Your task to perform on an android device: find which apps use the phone's location Image 0: 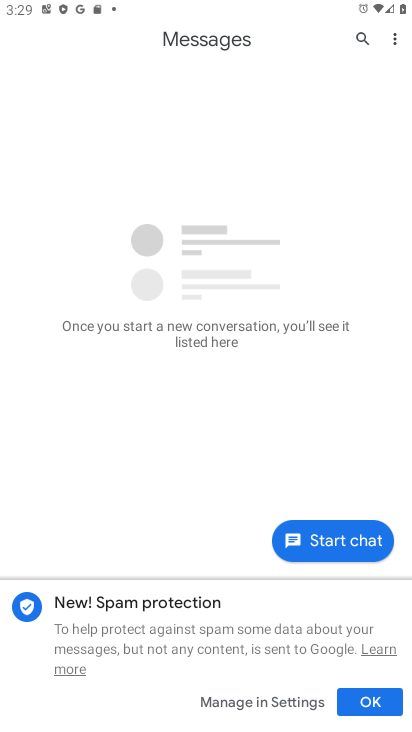
Step 0: press home button
Your task to perform on an android device: find which apps use the phone's location Image 1: 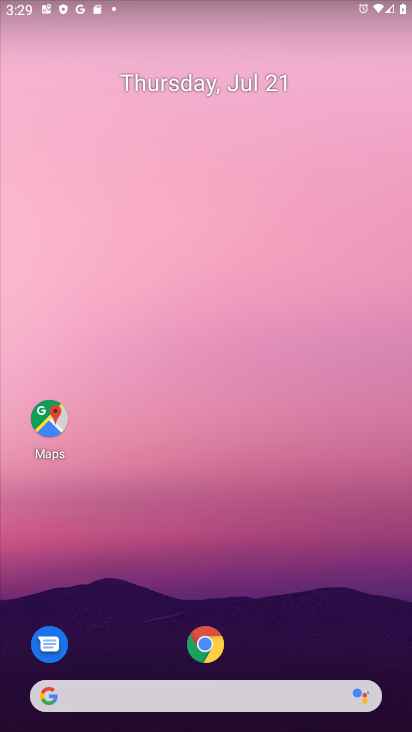
Step 1: drag from (279, 603) to (267, 101)
Your task to perform on an android device: find which apps use the phone's location Image 2: 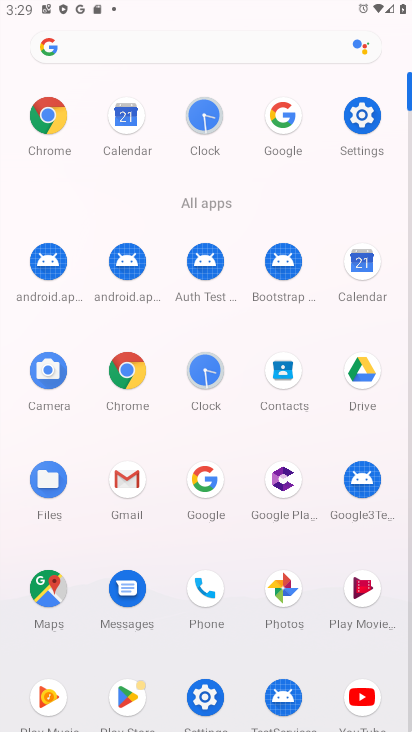
Step 2: click (349, 121)
Your task to perform on an android device: find which apps use the phone's location Image 3: 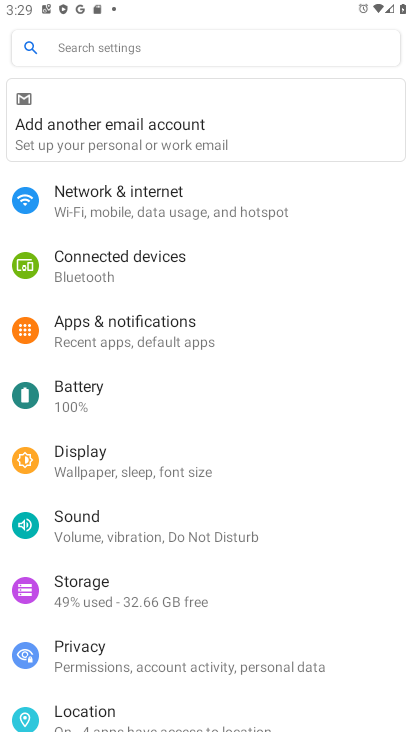
Step 3: click (89, 709)
Your task to perform on an android device: find which apps use the phone's location Image 4: 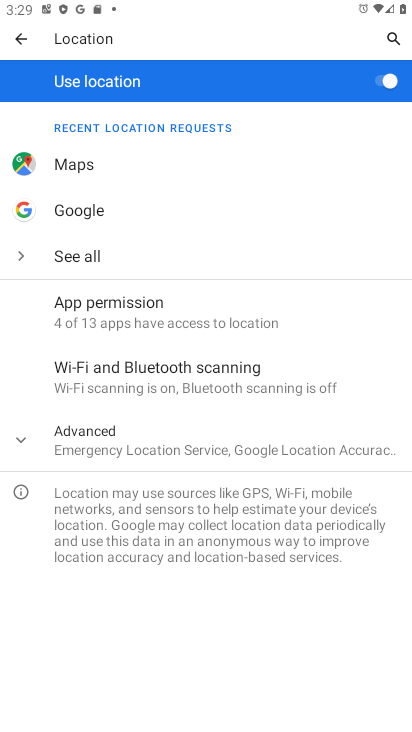
Step 4: click (115, 321)
Your task to perform on an android device: find which apps use the phone's location Image 5: 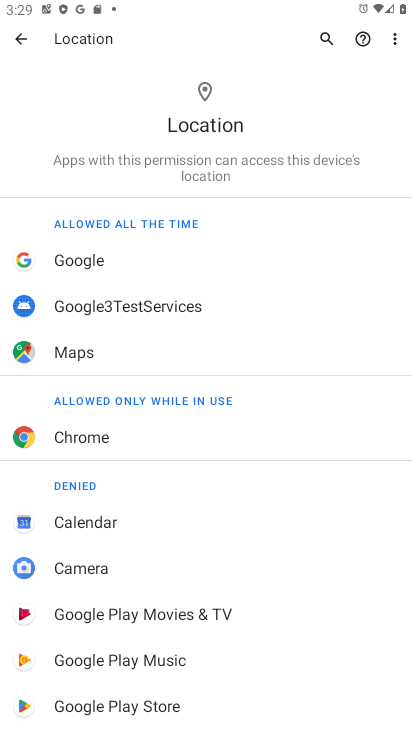
Step 5: task complete